Your task to perform on an android device: Show me popular videos on Youtube Image 0: 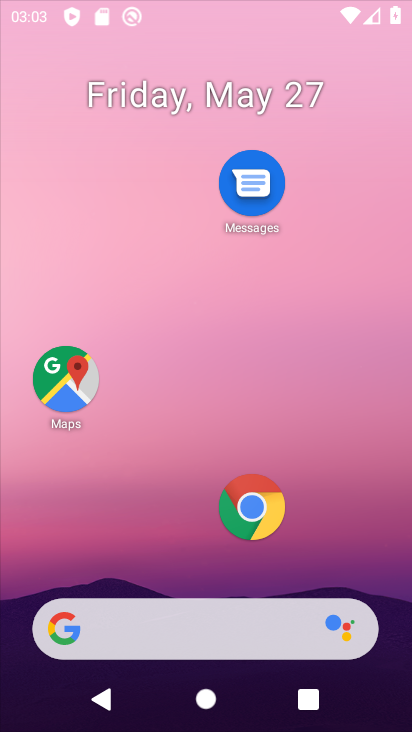
Step 0: drag from (180, 482) to (208, 153)
Your task to perform on an android device: Show me popular videos on Youtube Image 1: 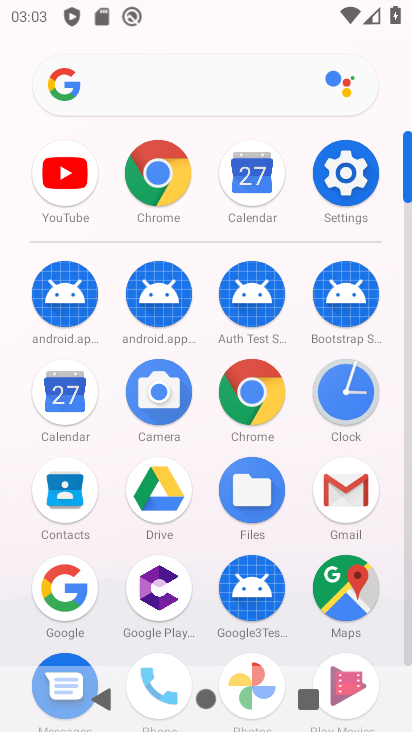
Step 1: click (46, 183)
Your task to perform on an android device: Show me popular videos on Youtube Image 2: 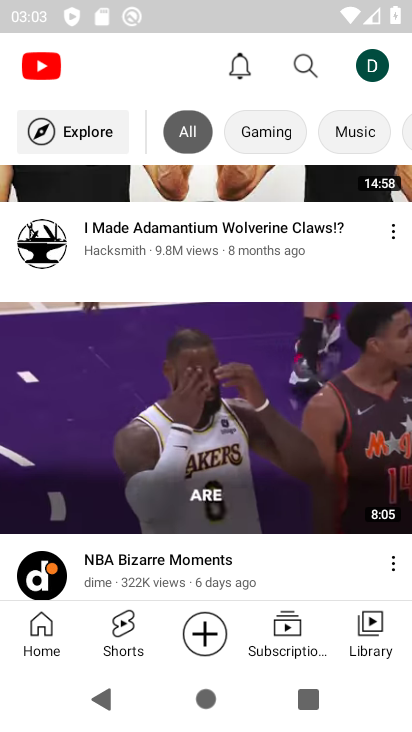
Step 2: task complete